Your task to perform on an android device: Search for Italian restaurants on Maps Image 0: 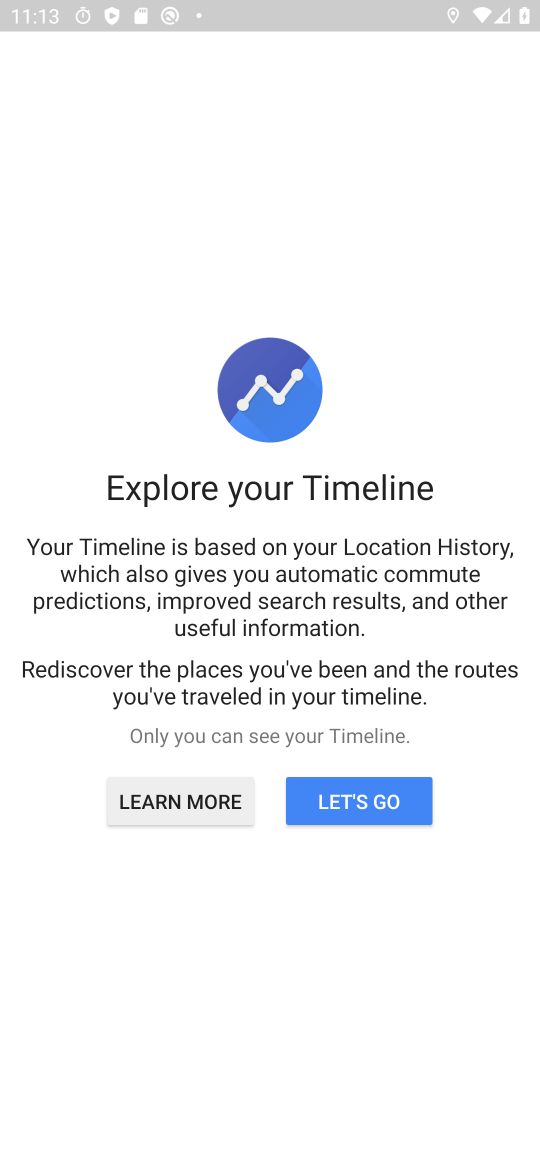
Step 0: click (34, 74)
Your task to perform on an android device: Search for Italian restaurants on Maps Image 1: 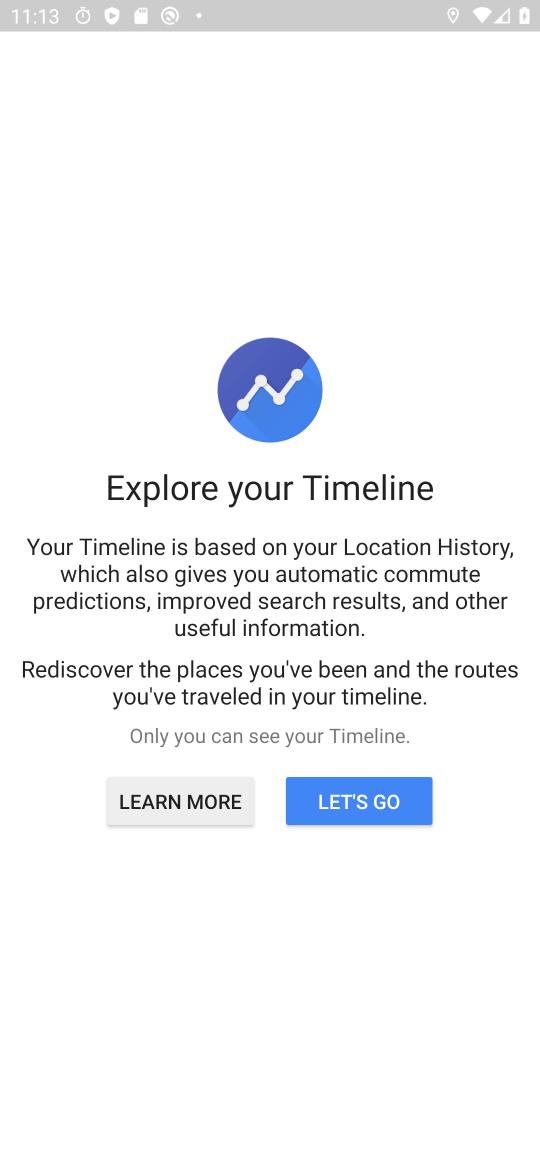
Step 1: press back button
Your task to perform on an android device: Search for Italian restaurants on Maps Image 2: 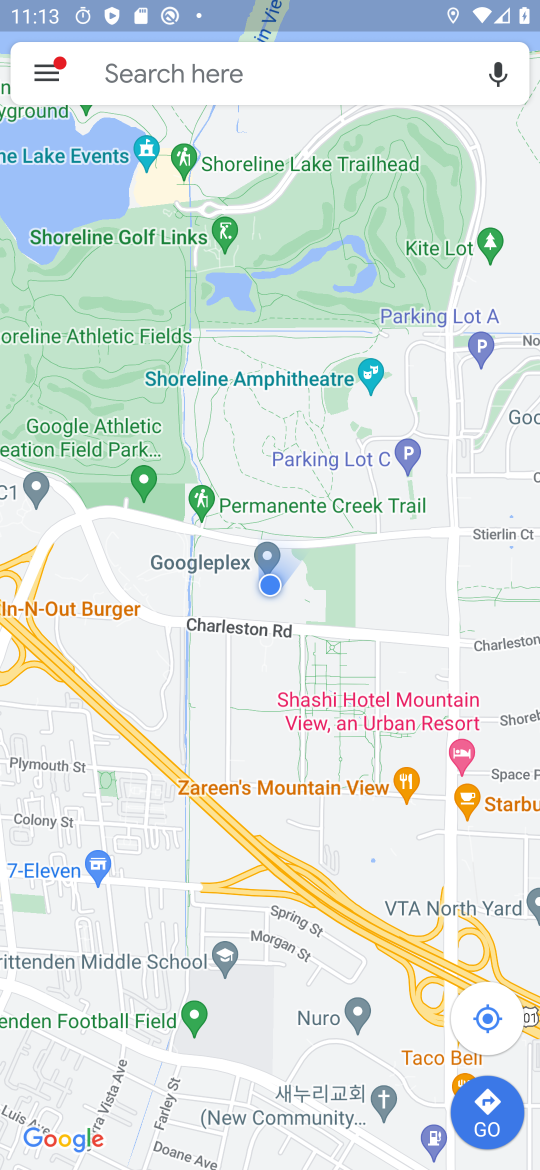
Step 2: click (116, 75)
Your task to perform on an android device: Search for Italian restaurants on Maps Image 3: 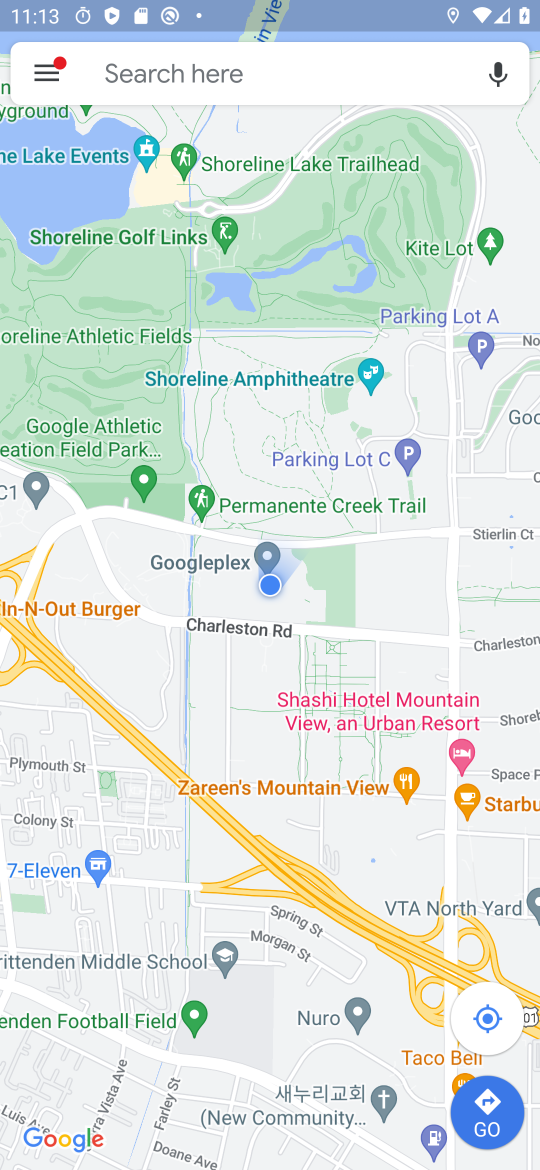
Step 3: click (118, 74)
Your task to perform on an android device: Search for Italian restaurants on Maps Image 4: 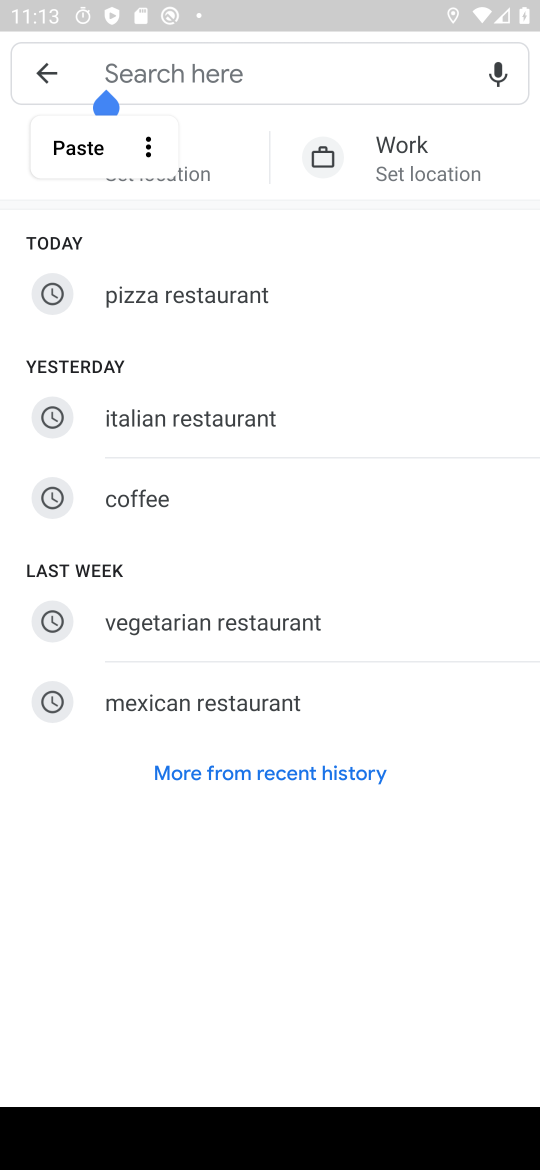
Step 4: click (204, 415)
Your task to perform on an android device: Search for Italian restaurants on Maps Image 5: 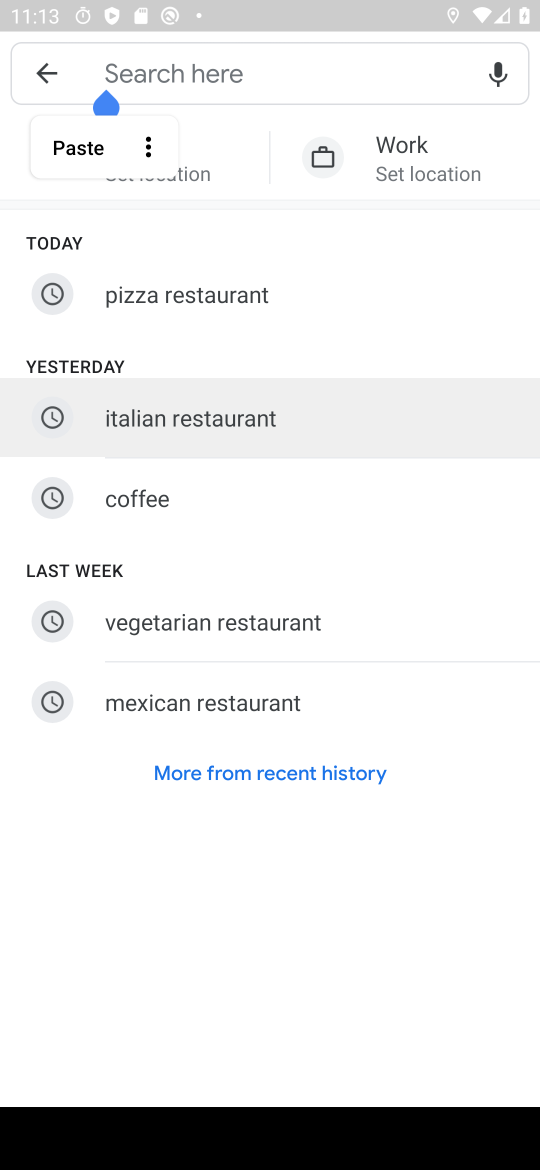
Step 5: click (207, 418)
Your task to perform on an android device: Search for Italian restaurants on Maps Image 6: 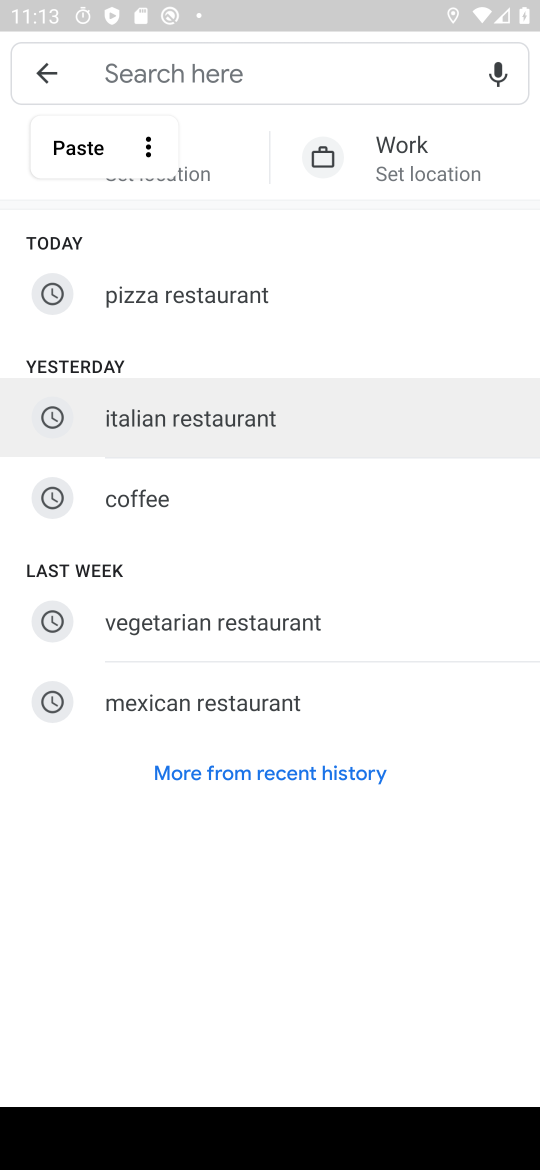
Step 6: click (210, 419)
Your task to perform on an android device: Search for Italian restaurants on Maps Image 7: 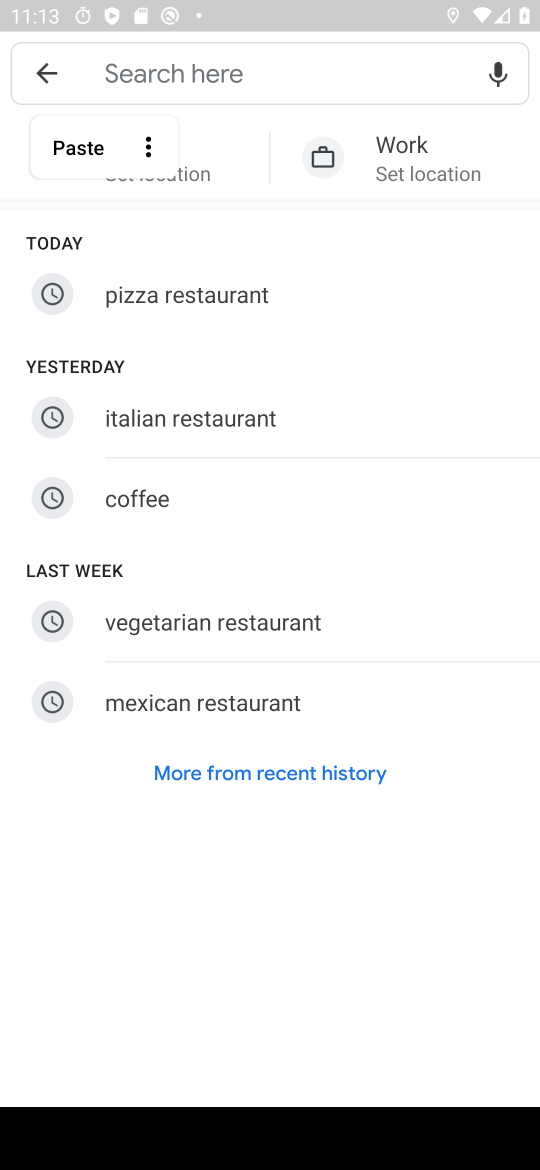
Step 7: click (210, 419)
Your task to perform on an android device: Search for Italian restaurants on Maps Image 8: 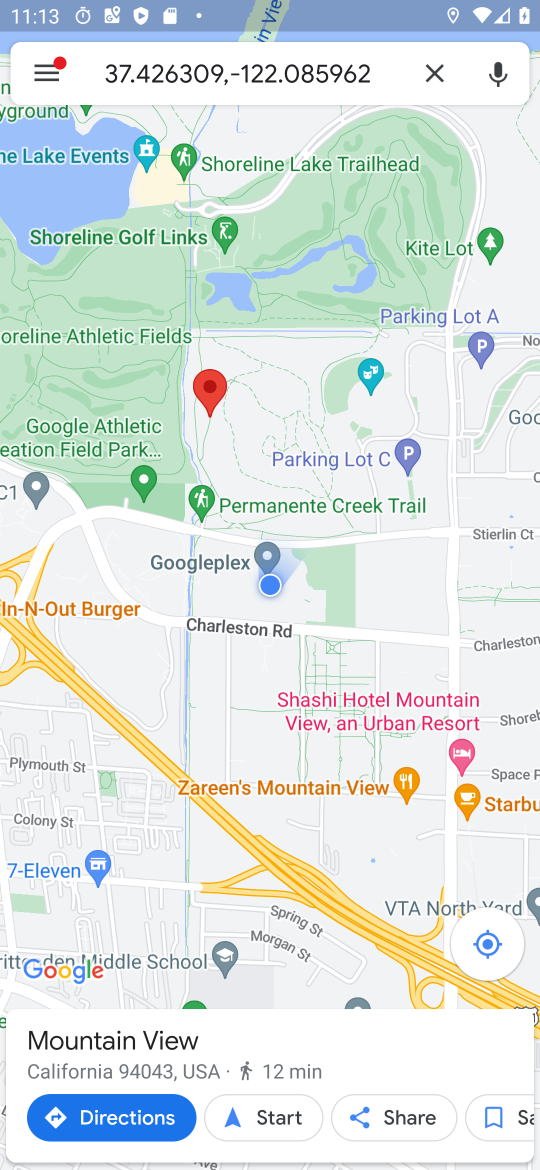
Step 8: click (431, 77)
Your task to perform on an android device: Search for Italian restaurants on Maps Image 9: 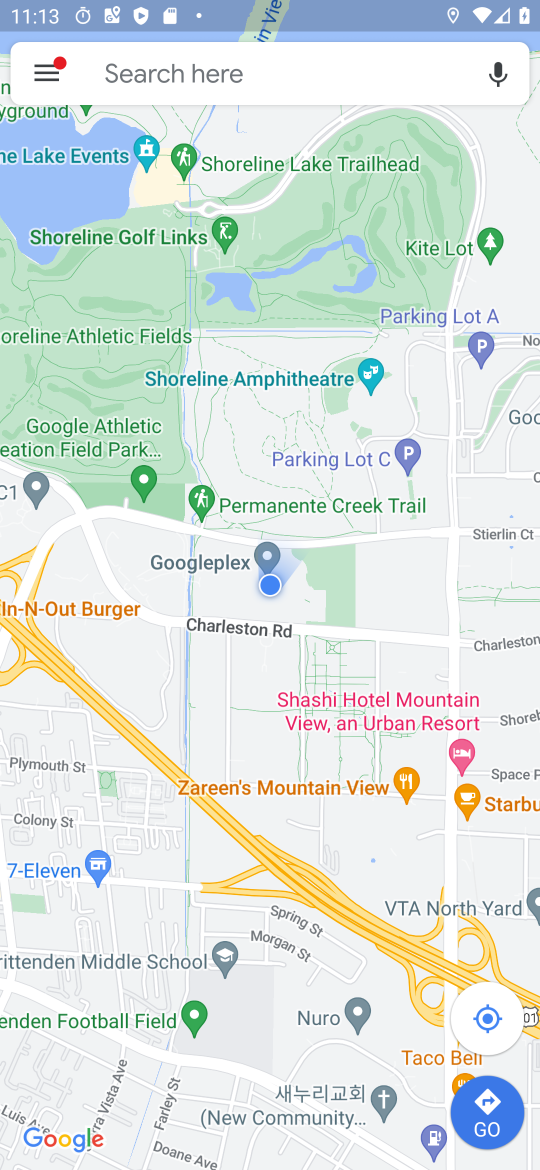
Step 9: type "italian restaurants"
Your task to perform on an android device: Search for Italian restaurants on Maps Image 10: 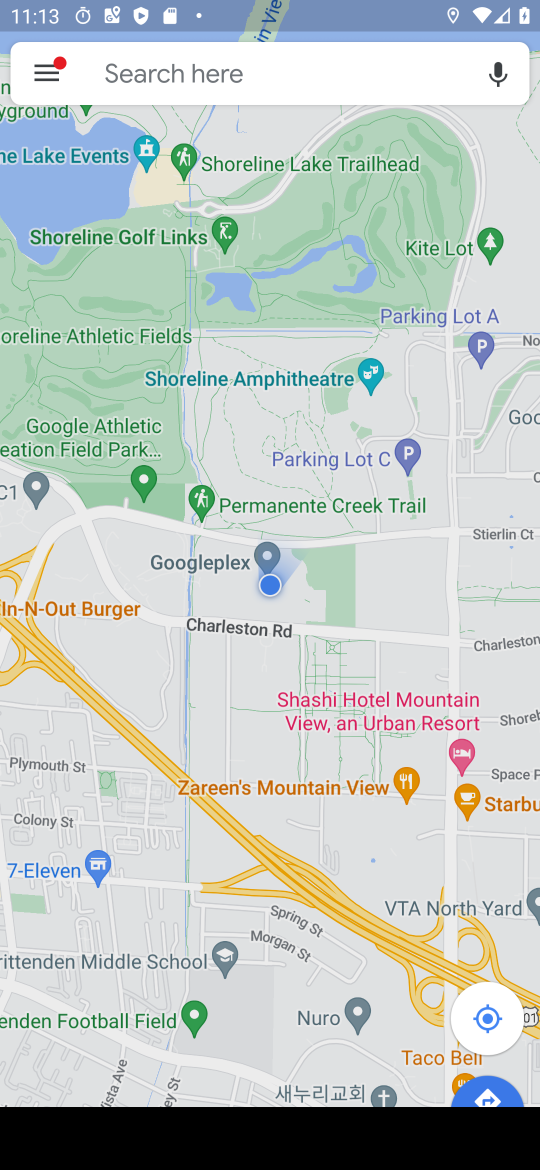
Step 10: click (270, 66)
Your task to perform on an android device: Search for Italian restaurants on Maps Image 11: 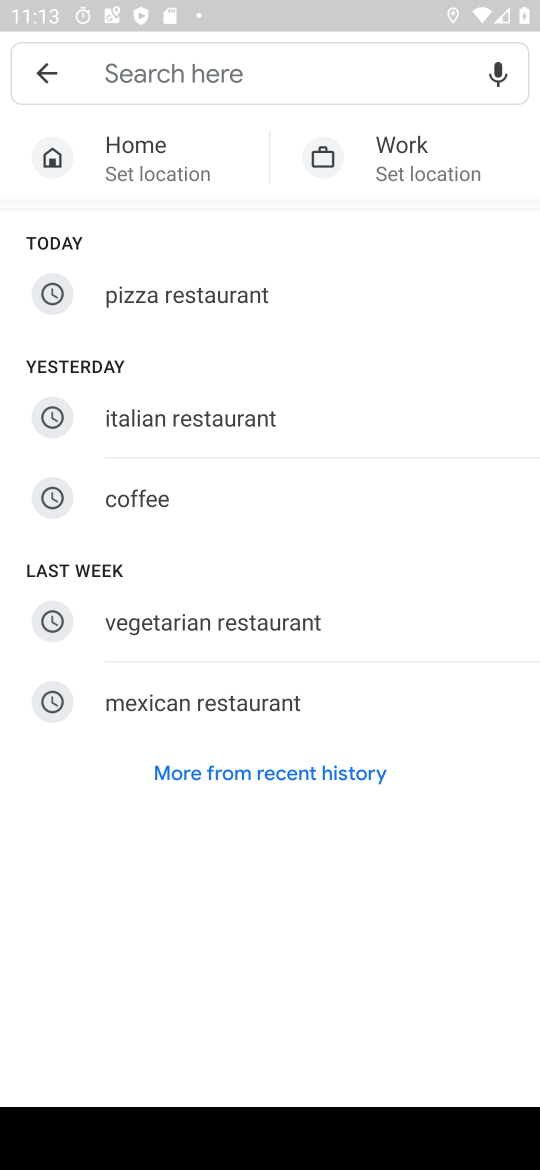
Step 11: click (153, 423)
Your task to perform on an android device: Search for Italian restaurants on Maps Image 12: 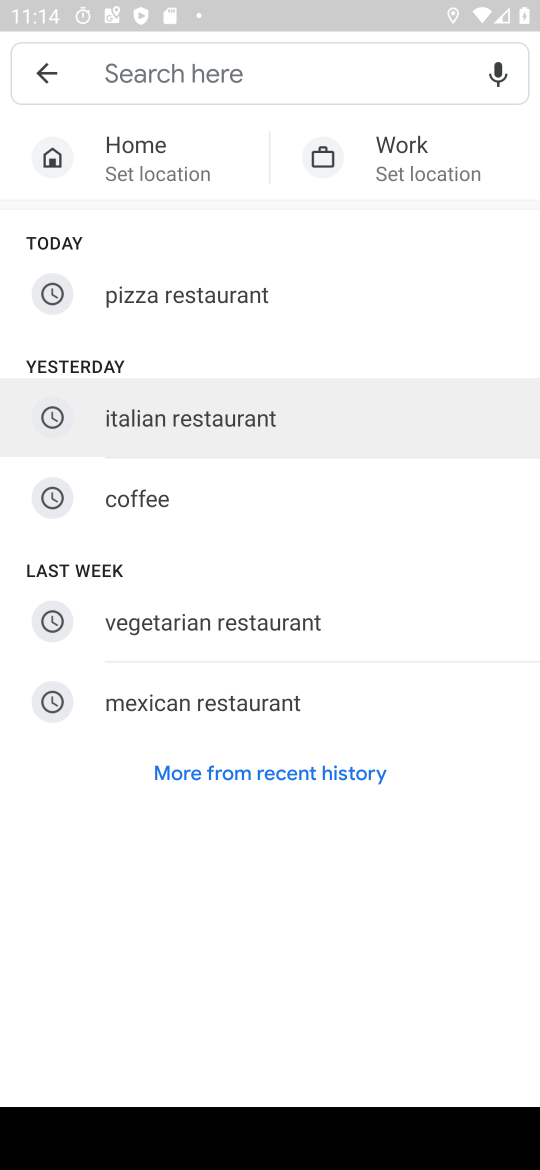
Step 12: click (207, 445)
Your task to perform on an android device: Search for Italian restaurants on Maps Image 13: 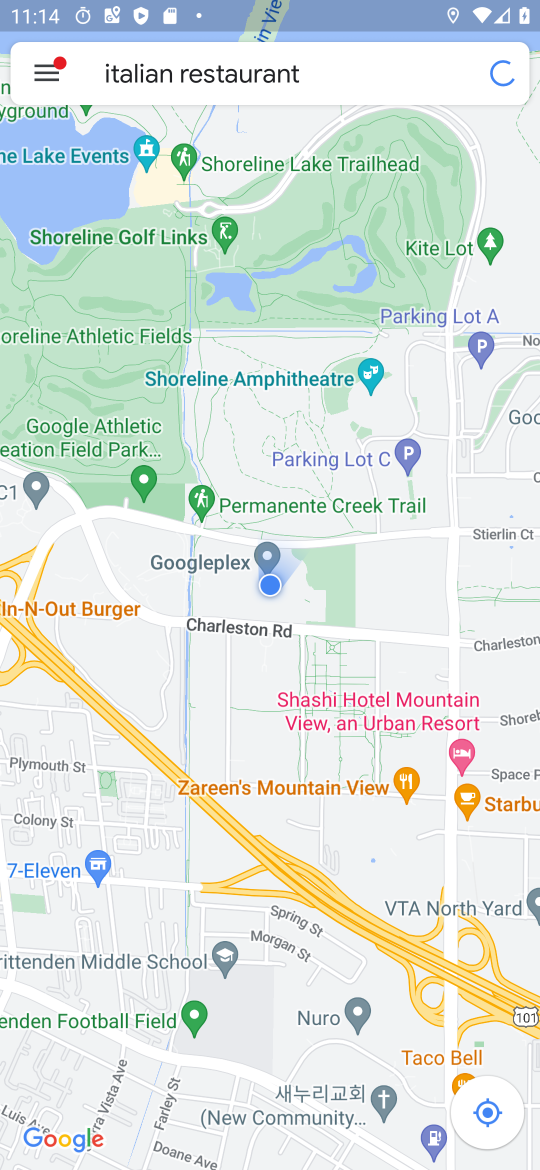
Step 13: click (212, 433)
Your task to perform on an android device: Search for Italian restaurants on Maps Image 14: 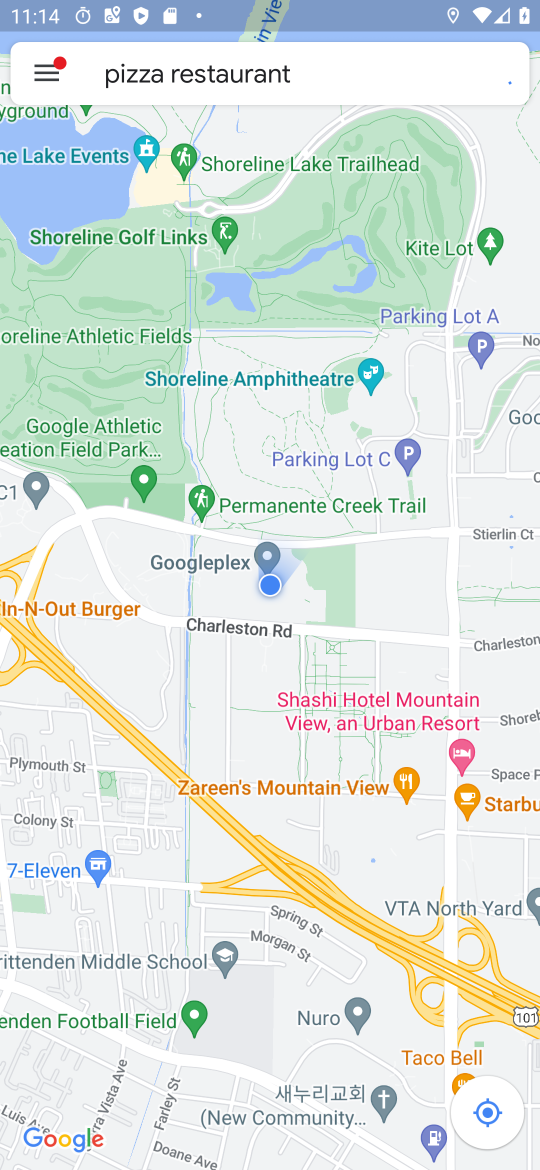
Step 14: task complete